Your task to perform on an android device: find photos in the google photos app Image 0: 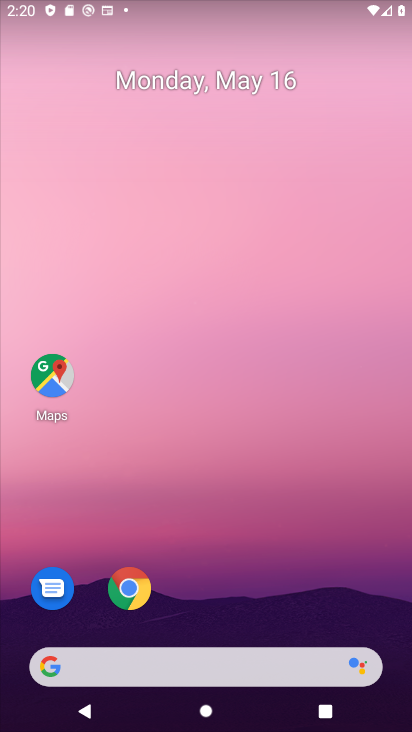
Step 0: drag from (173, 649) to (245, 219)
Your task to perform on an android device: find photos in the google photos app Image 1: 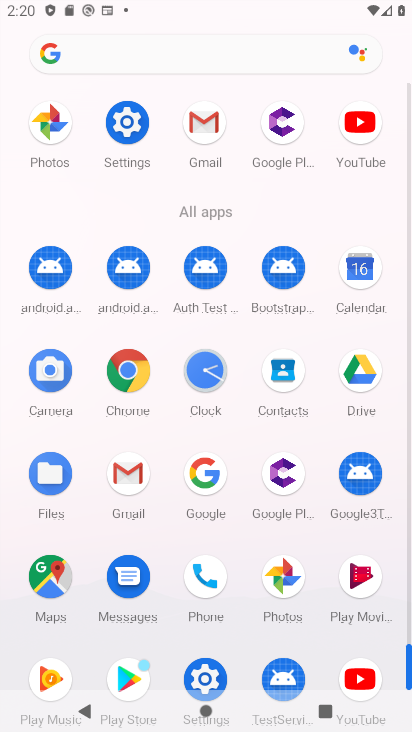
Step 1: drag from (173, 677) to (174, 541)
Your task to perform on an android device: find photos in the google photos app Image 2: 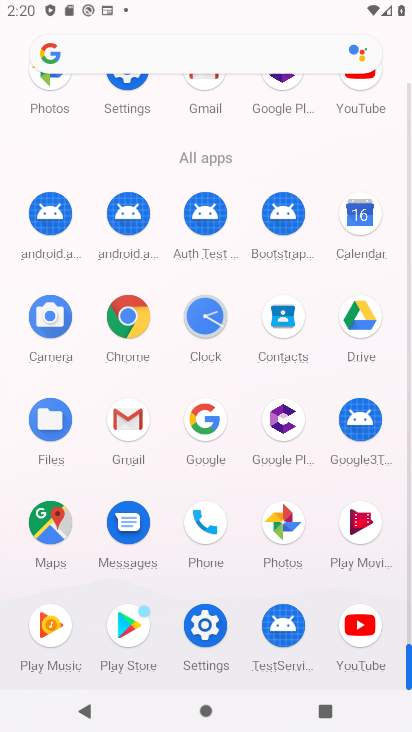
Step 2: click (290, 511)
Your task to perform on an android device: find photos in the google photos app Image 3: 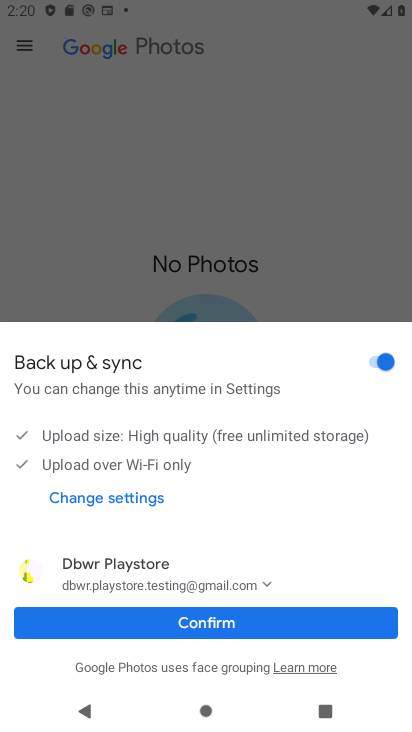
Step 3: click (240, 632)
Your task to perform on an android device: find photos in the google photos app Image 4: 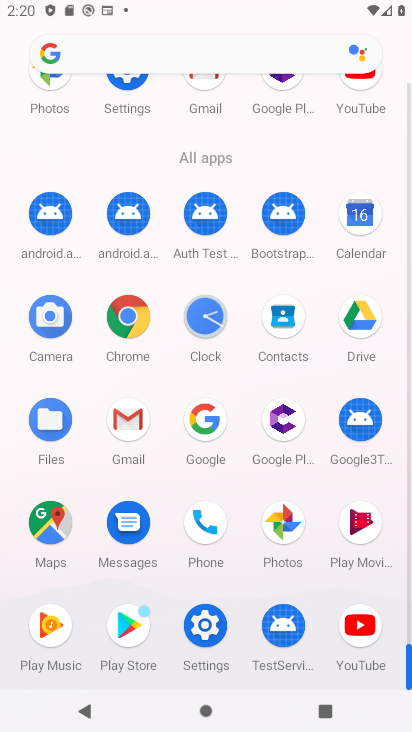
Step 4: click (288, 516)
Your task to perform on an android device: find photos in the google photos app Image 5: 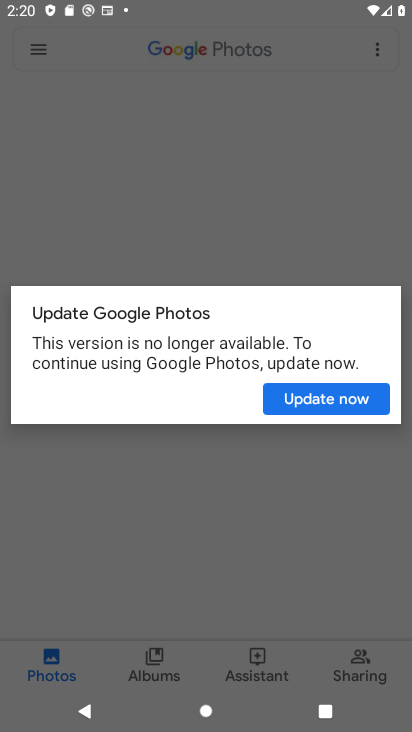
Step 5: click (330, 403)
Your task to perform on an android device: find photos in the google photos app Image 6: 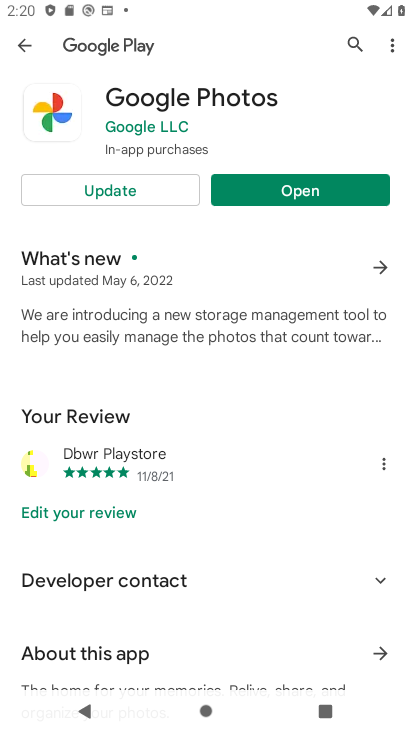
Step 6: click (126, 193)
Your task to perform on an android device: find photos in the google photos app Image 7: 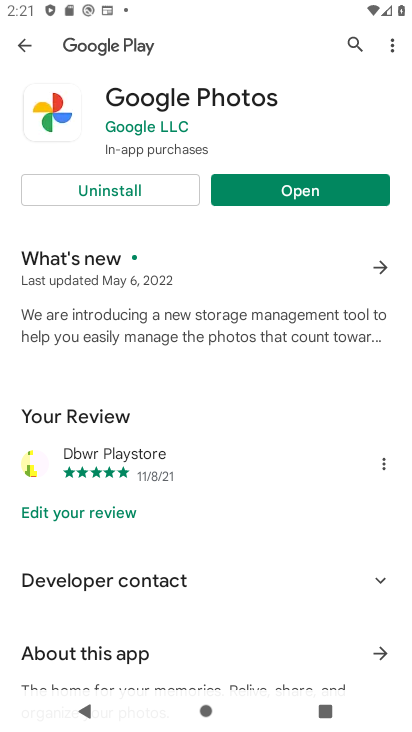
Step 7: click (298, 192)
Your task to perform on an android device: find photos in the google photos app Image 8: 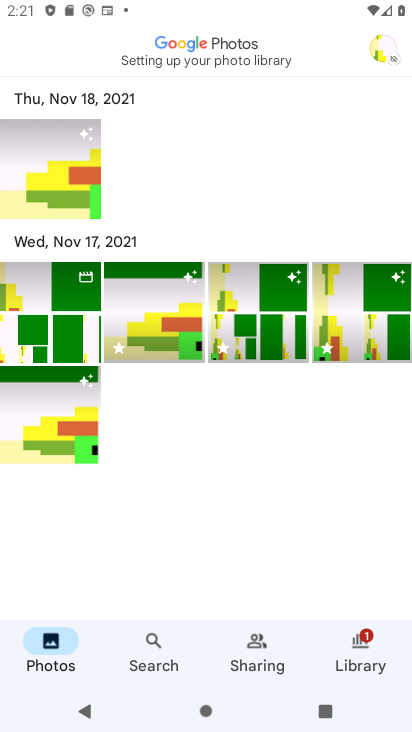
Step 8: task complete